Your task to perform on an android device: Check the weather Image 0: 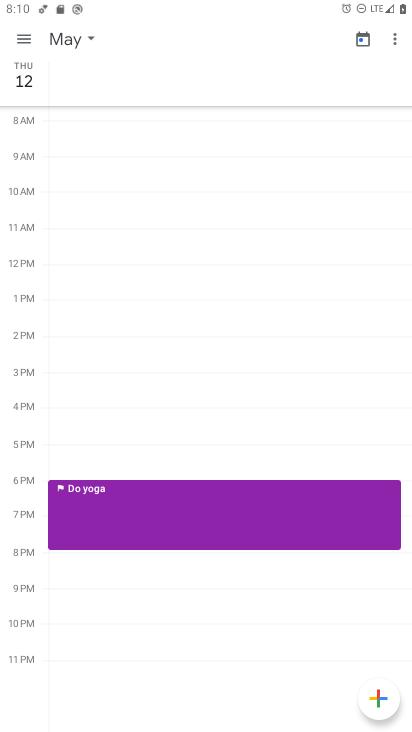
Step 0: press home button
Your task to perform on an android device: Check the weather Image 1: 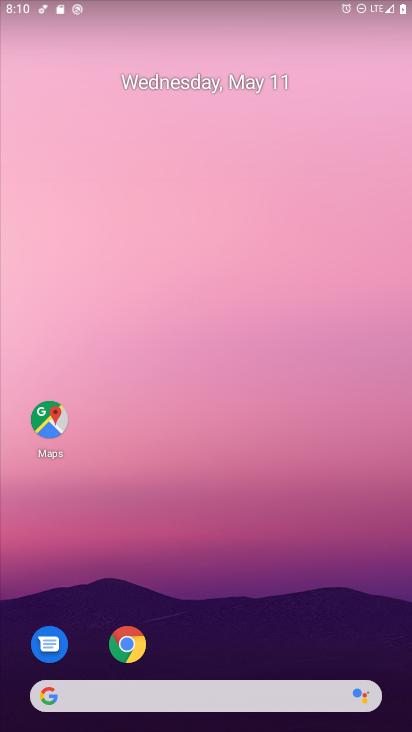
Step 1: click (204, 699)
Your task to perform on an android device: Check the weather Image 2: 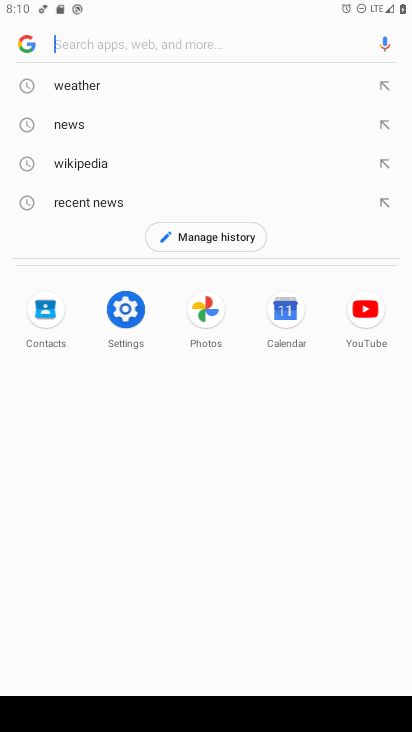
Step 2: click (80, 82)
Your task to perform on an android device: Check the weather Image 3: 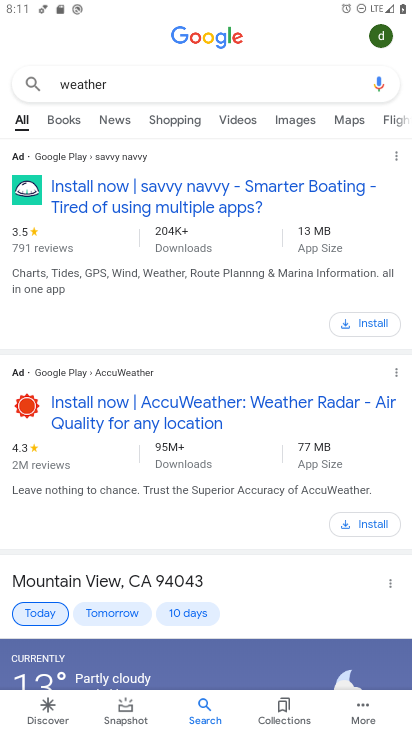
Step 3: task complete